Your task to perform on an android device: turn on the 12-hour format for clock Image 0: 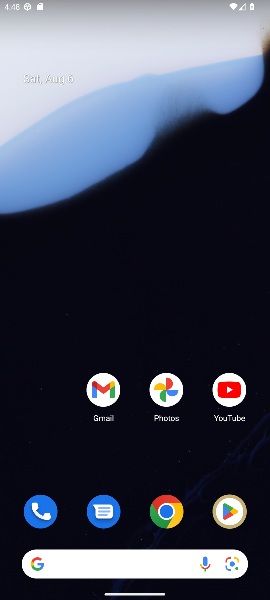
Step 0: drag from (139, 476) to (152, 192)
Your task to perform on an android device: turn on the 12-hour format for clock Image 1: 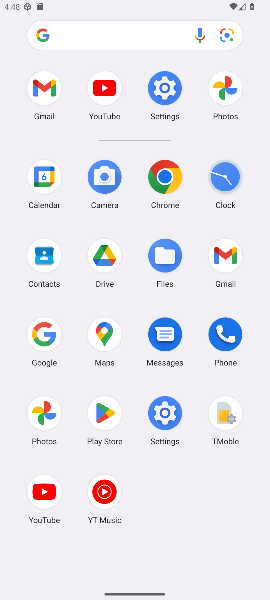
Step 1: click (169, 419)
Your task to perform on an android device: turn on the 12-hour format for clock Image 2: 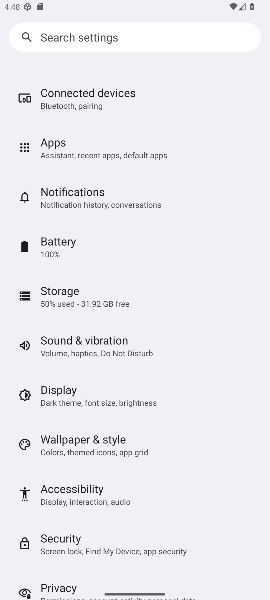
Step 2: drag from (96, 373) to (102, 330)
Your task to perform on an android device: turn on the 12-hour format for clock Image 3: 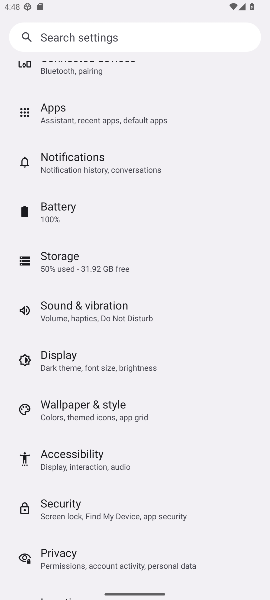
Step 3: drag from (78, 407) to (85, 304)
Your task to perform on an android device: turn on the 12-hour format for clock Image 4: 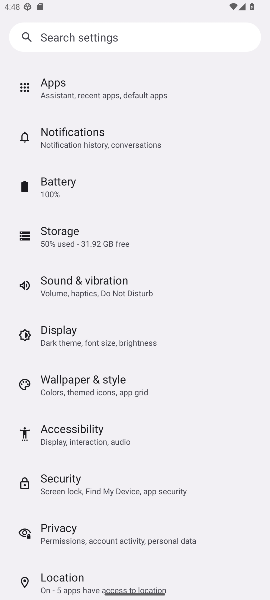
Step 4: drag from (79, 550) to (92, 497)
Your task to perform on an android device: turn on the 12-hour format for clock Image 5: 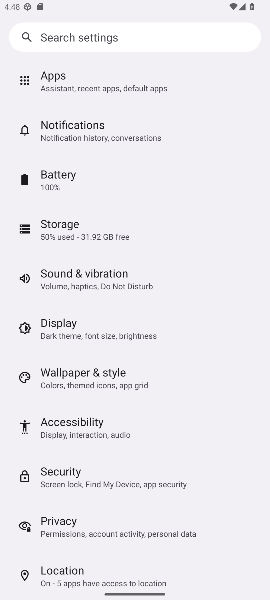
Step 5: drag from (101, 523) to (153, 115)
Your task to perform on an android device: turn on the 12-hour format for clock Image 6: 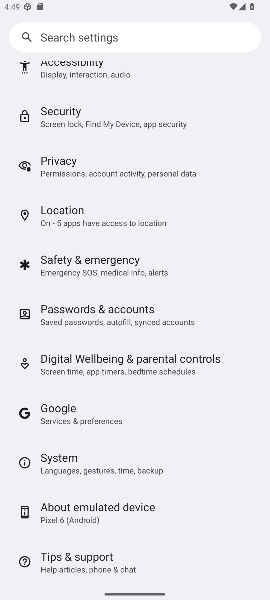
Step 6: click (68, 473)
Your task to perform on an android device: turn on the 12-hour format for clock Image 7: 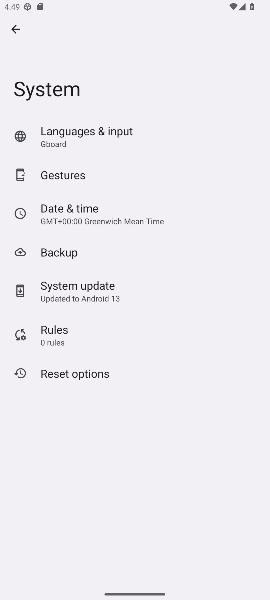
Step 7: click (62, 213)
Your task to perform on an android device: turn on the 12-hour format for clock Image 8: 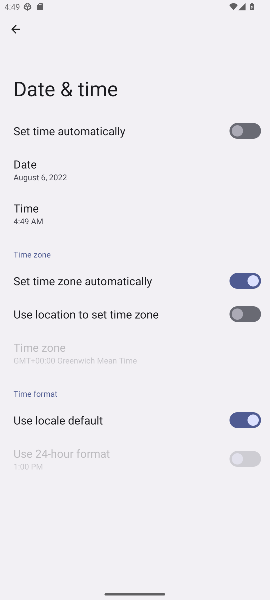
Step 8: task complete